Your task to perform on an android device: turn notification dots on Image 0: 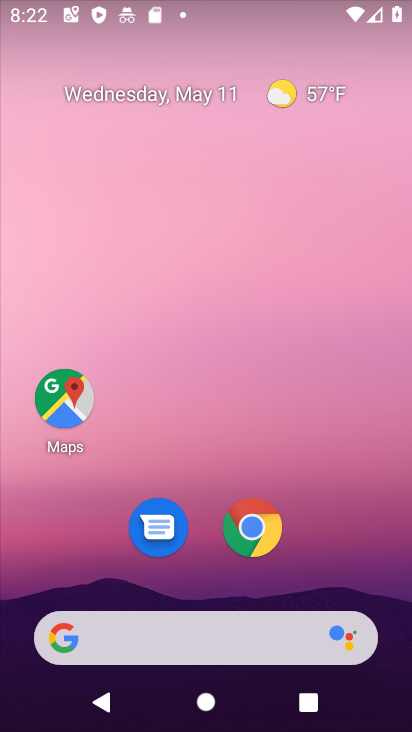
Step 0: drag from (364, 410) to (320, 1)
Your task to perform on an android device: turn notification dots on Image 1: 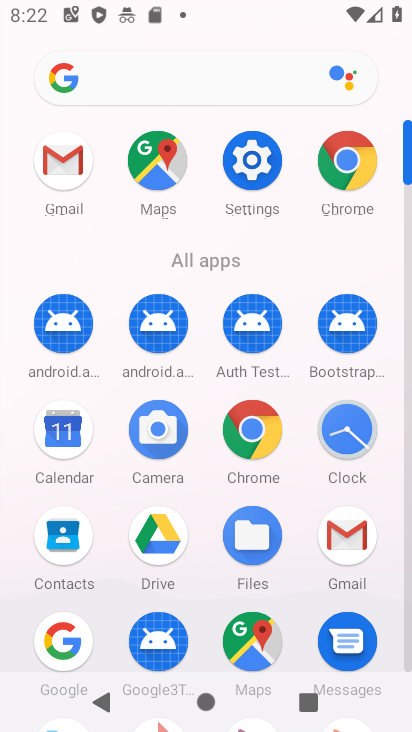
Step 1: click (241, 181)
Your task to perform on an android device: turn notification dots on Image 2: 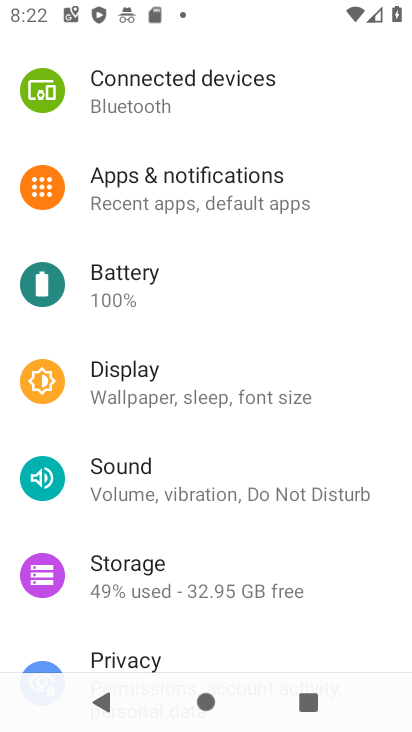
Step 2: click (241, 181)
Your task to perform on an android device: turn notification dots on Image 3: 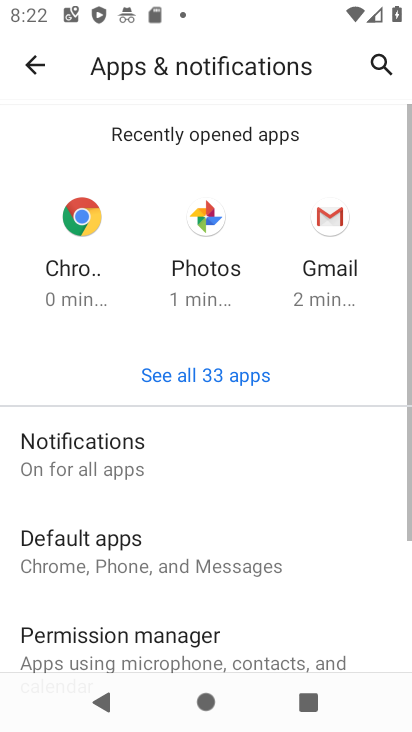
Step 3: click (69, 468)
Your task to perform on an android device: turn notification dots on Image 4: 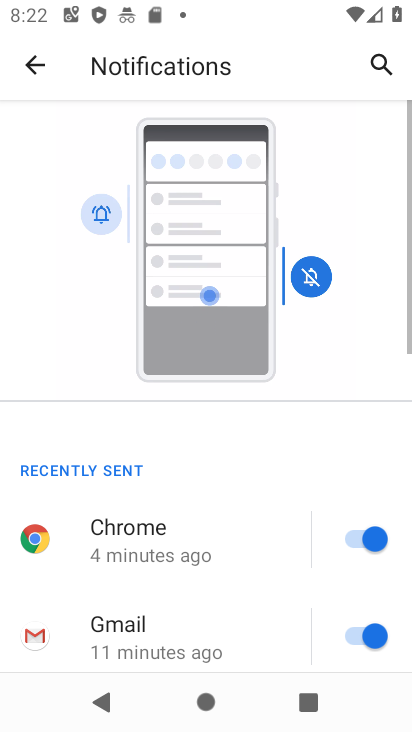
Step 4: drag from (149, 626) to (169, 1)
Your task to perform on an android device: turn notification dots on Image 5: 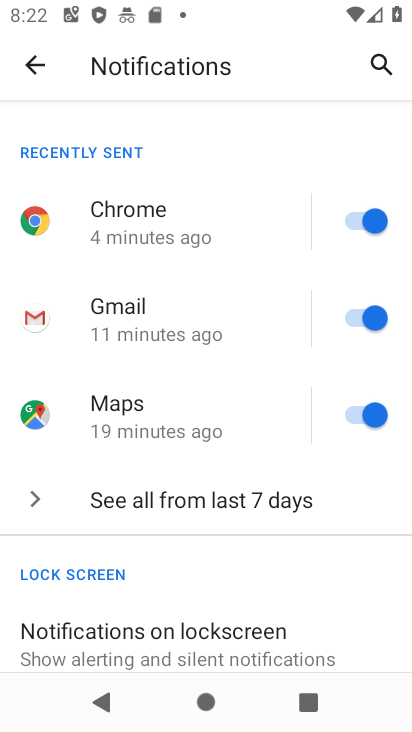
Step 5: drag from (135, 594) to (154, 71)
Your task to perform on an android device: turn notification dots on Image 6: 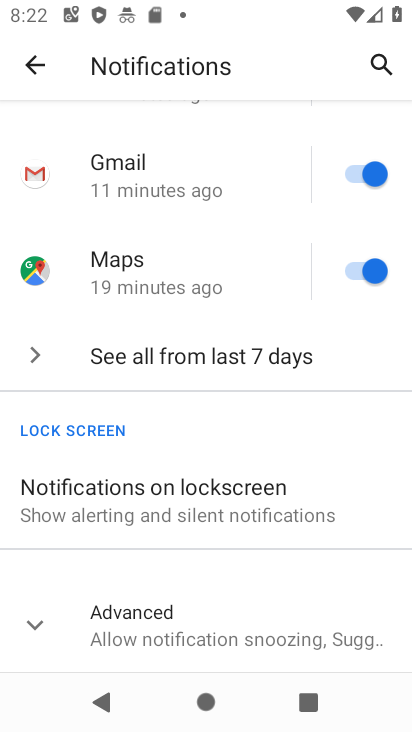
Step 6: click (32, 627)
Your task to perform on an android device: turn notification dots on Image 7: 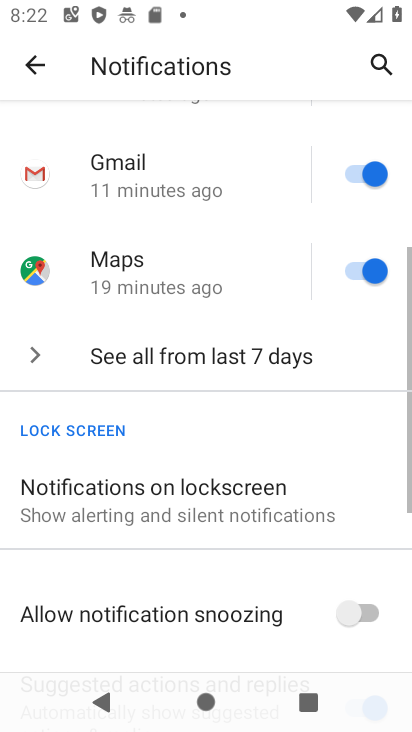
Step 7: task complete